Your task to perform on an android device: add a contact in the contacts app Image 0: 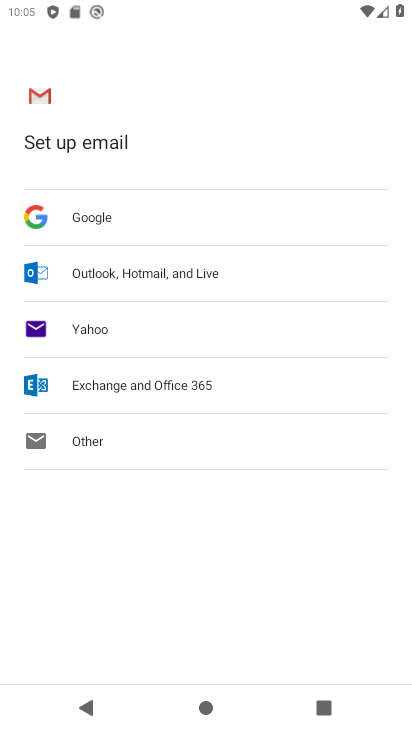
Step 0: press home button
Your task to perform on an android device: add a contact in the contacts app Image 1: 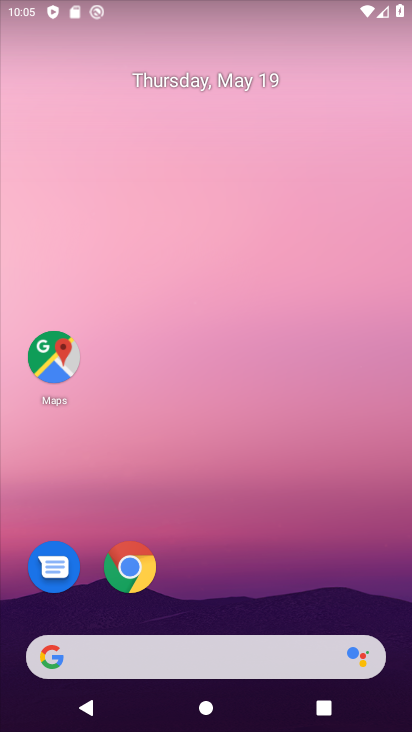
Step 1: drag from (383, 622) to (325, 103)
Your task to perform on an android device: add a contact in the contacts app Image 2: 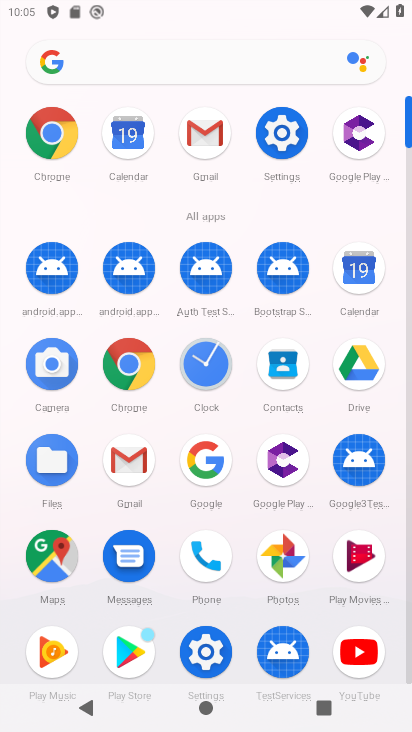
Step 2: click (275, 363)
Your task to perform on an android device: add a contact in the contacts app Image 3: 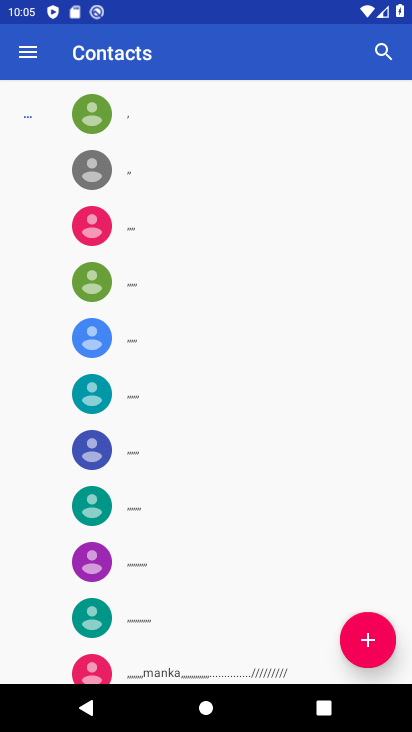
Step 3: click (366, 639)
Your task to perform on an android device: add a contact in the contacts app Image 4: 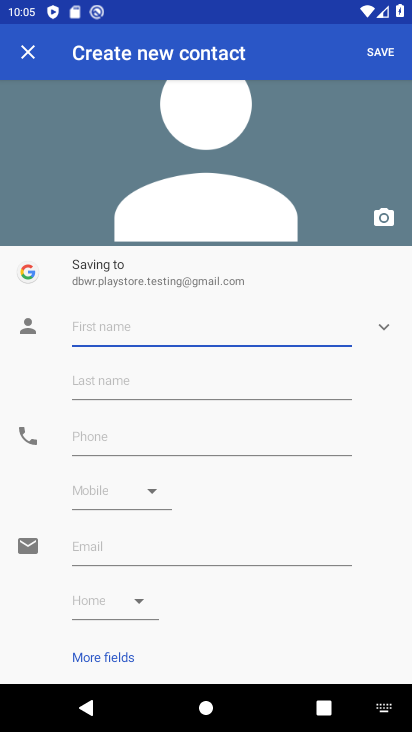
Step 4: type "powrryuifh"
Your task to perform on an android device: add a contact in the contacts app Image 5: 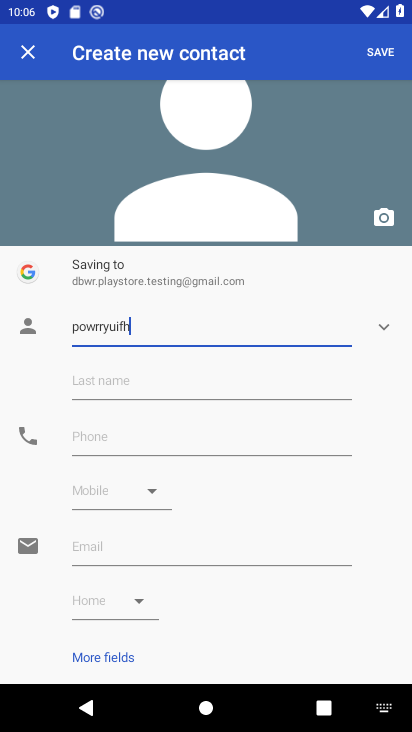
Step 5: click (124, 435)
Your task to perform on an android device: add a contact in the contacts app Image 6: 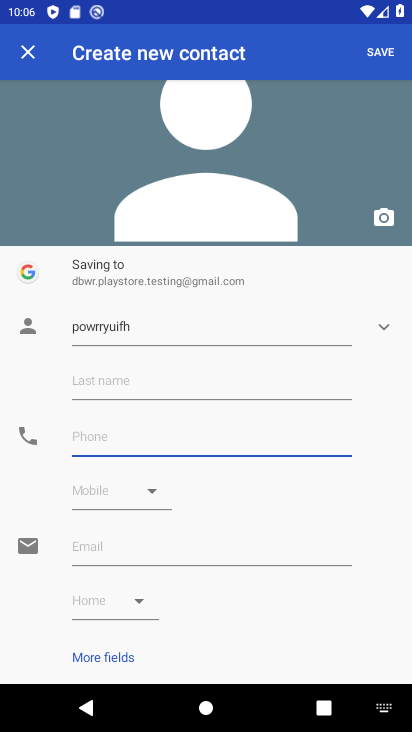
Step 6: type "09832356789"
Your task to perform on an android device: add a contact in the contacts app Image 7: 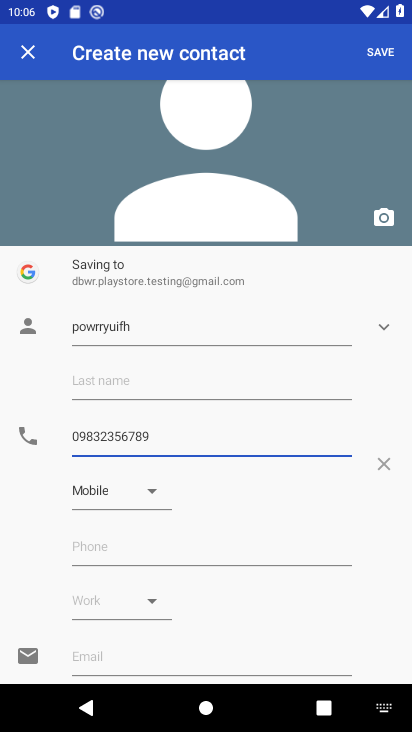
Step 7: click (146, 492)
Your task to perform on an android device: add a contact in the contacts app Image 8: 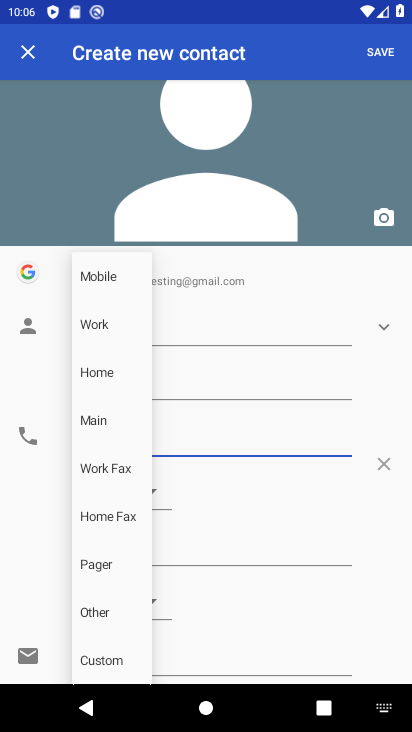
Step 8: click (93, 372)
Your task to perform on an android device: add a contact in the contacts app Image 9: 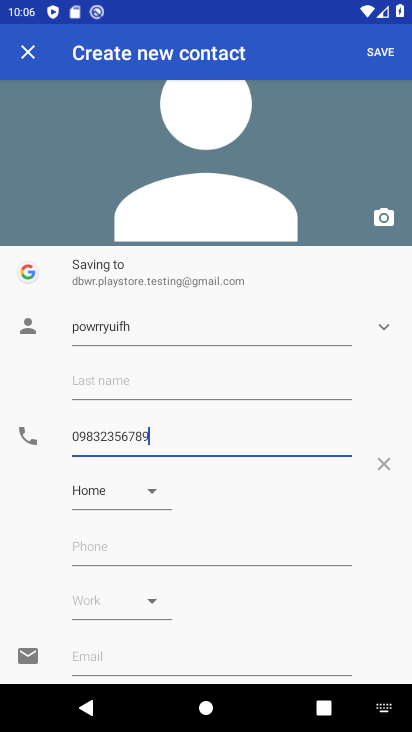
Step 9: click (373, 47)
Your task to perform on an android device: add a contact in the contacts app Image 10: 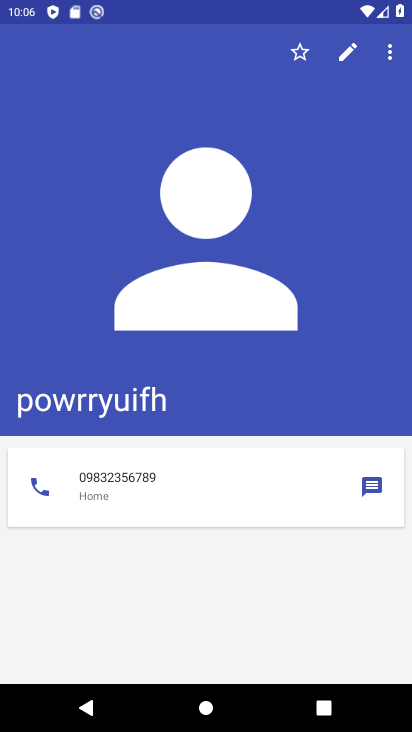
Step 10: task complete